Your task to perform on an android device: Find coffee shops on Maps Image 0: 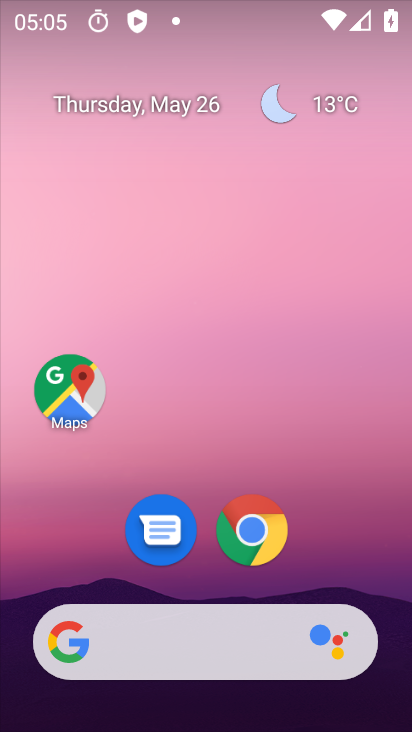
Step 0: drag from (195, 559) to (262, 14)
Your task to perform on an android device: Find coffee shops on Maps Image 1: 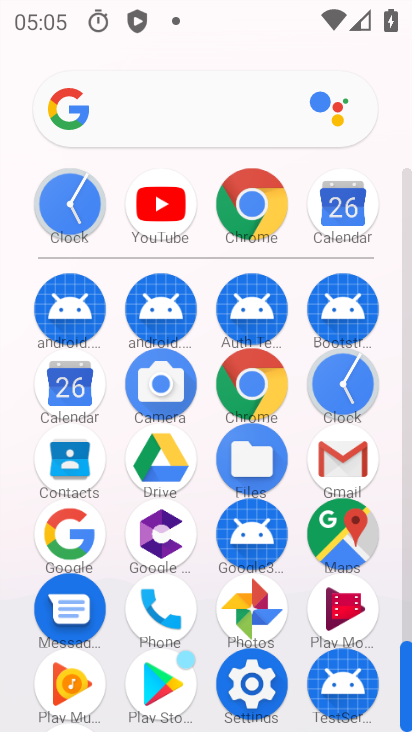
Step 1: click (327, 545)
Your task to perform on an android device: Find coffee shops on Maps Image 2: 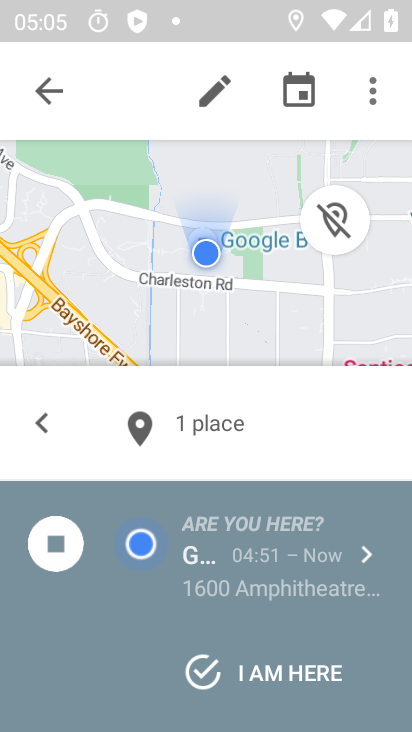
Step 2: press back button
Your task to perform on an android device: Find coffee shops on Maps Image 3: 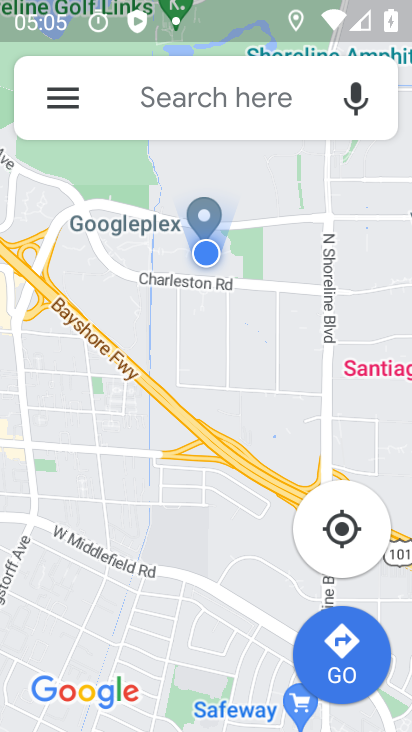
Step 3: click (52, 93)
Your task to perform on an android device: Find coffee shops on Maps Image 4: 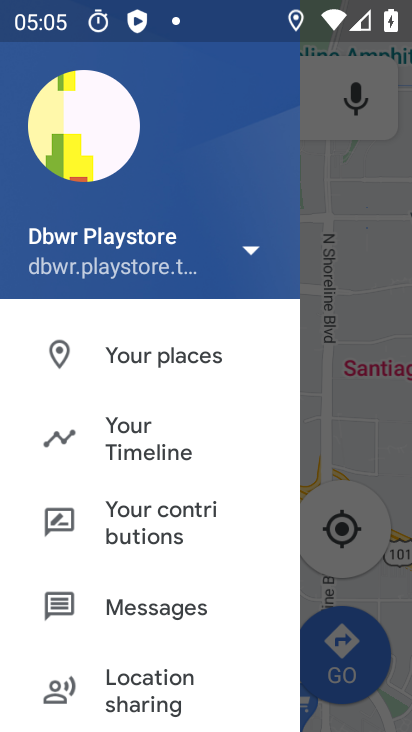
Step 4: click (371, 313)
Your task to perform on an android device: Find coffee shops on Maps Image 5: 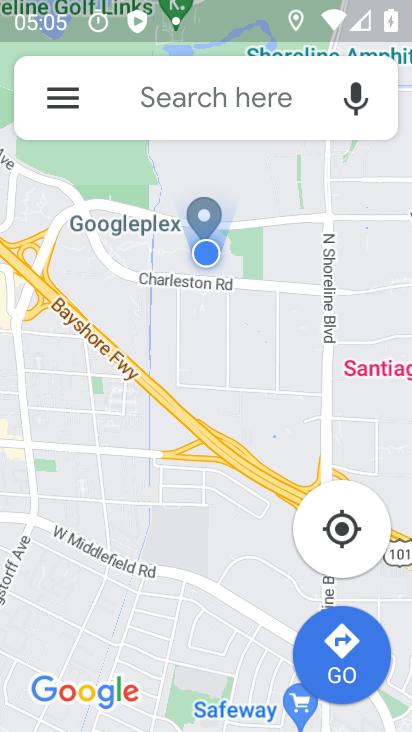
Step 5: click (243, 90)
Your task to perform on an android device: Find coffee shops on Maps Image 6: 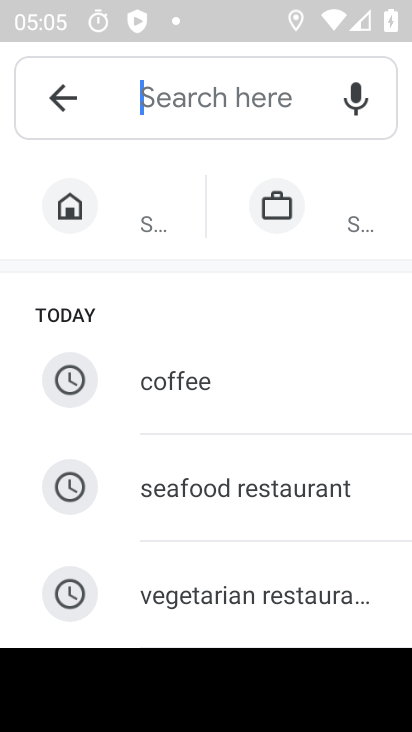
Step 6: type "coffee shops"
Your task to perform on an android device: Find coffee shops on Maps Image 7: 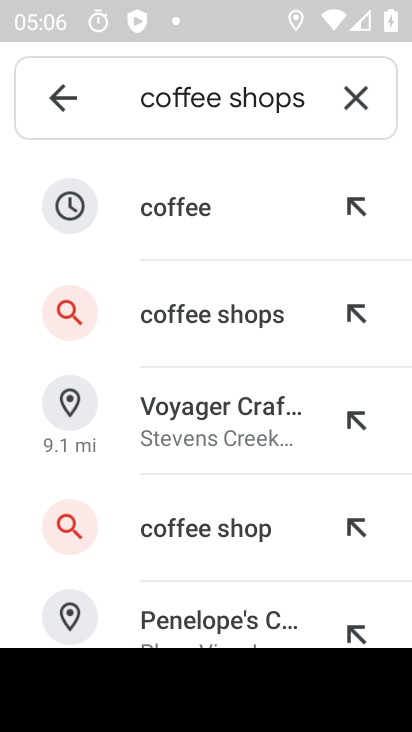
Step 7: click (241, 302)
Your task to perform on an android device: Find coffee shops on Maps Image 8: 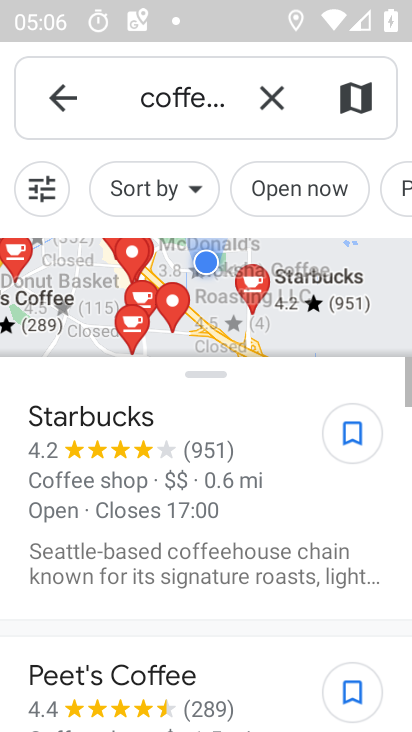
Step 8: task complete